Your task to perform on an android device: Go to Google Image 0: 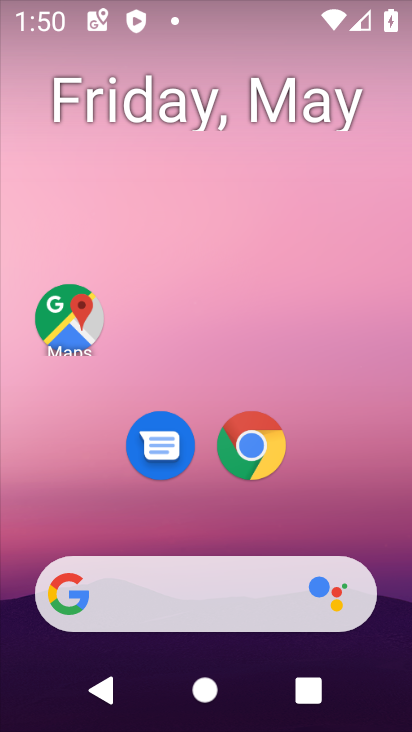
Step 0: click (252, 440)
Your task to perform on an android device: Go to Google Image 1: 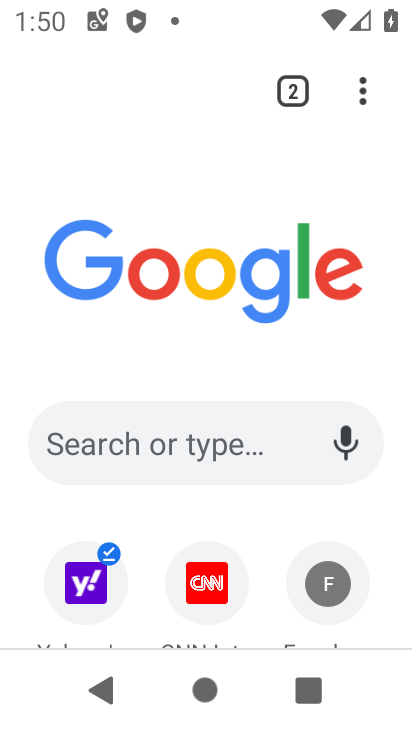
Step 1: task complete